Your task to perform on an android device: Open CNN.com Image 0: 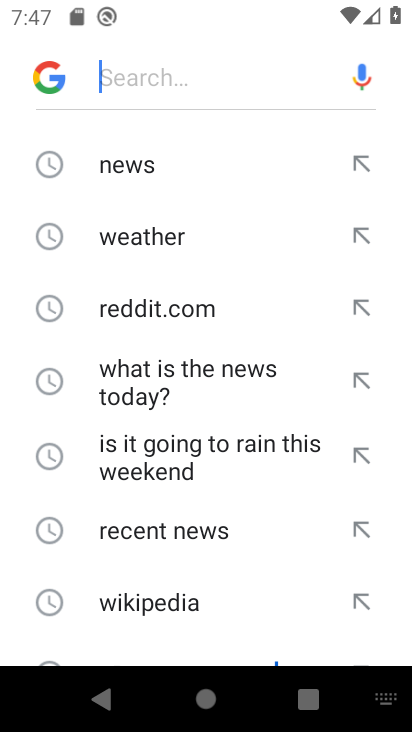
Step 0: click (140, 70)
Your task to perform on an android device: Open CNN.com Image 1: 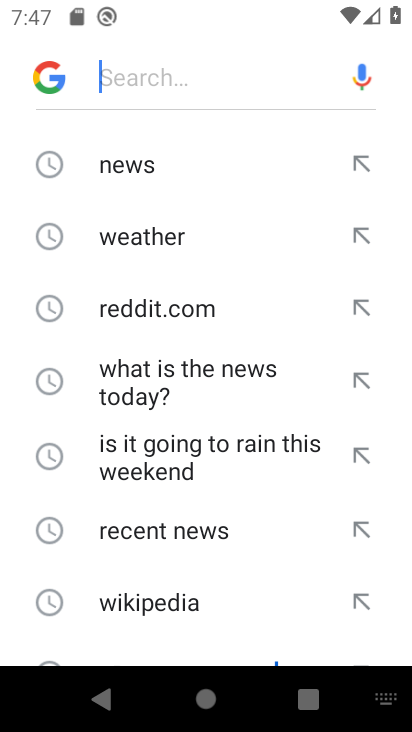
Step 1: type "cnn.com"
Your task to perform on an android device: Open CNN.com Image 2: 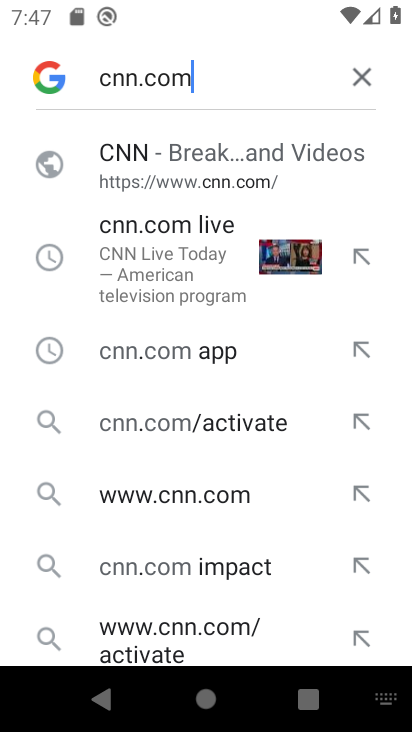
Step 2: click (136, 165)
Your task to perform on an android device: Open CNN.com Image 3: 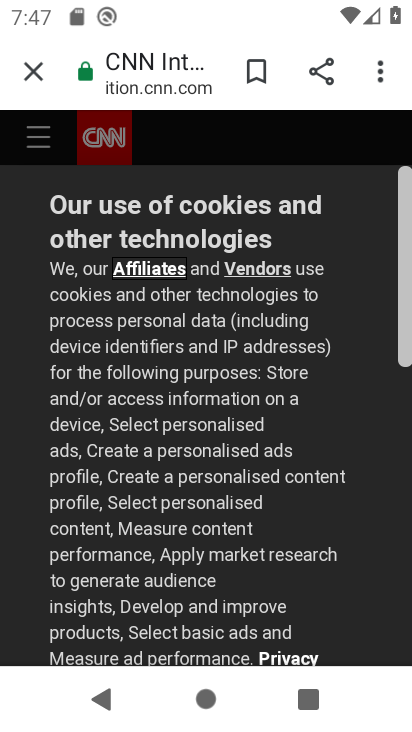
Step 3: task complete